Your task to perform on an android device: Open sound settings Image 0: 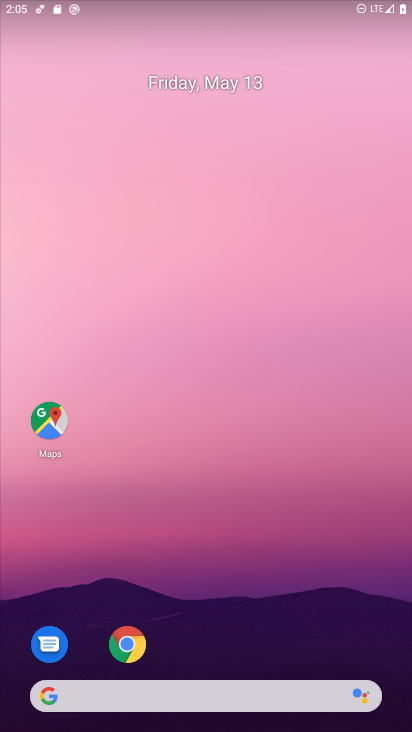
Step 0: drag from (301, 654) to (261, 103)
Your task to perform on an android device: Open sound settings Image 1: 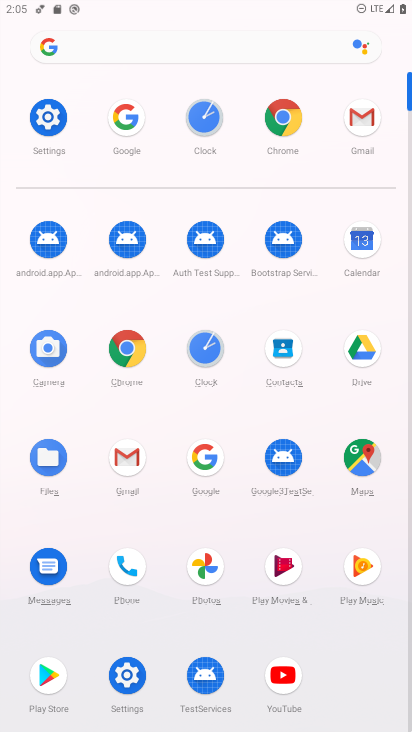
Step 1: click (43, 125)
Your task to perform on an android device: Open sound settings Image 2: 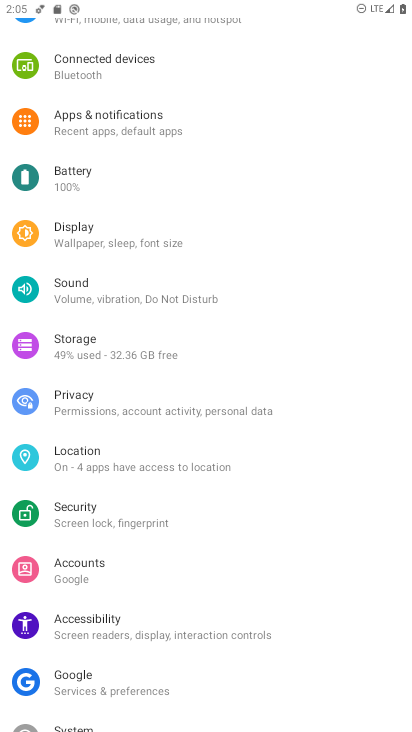
Step 2: click (121, 310)
Your task to perform on an android device: Open sound settings Image 3: 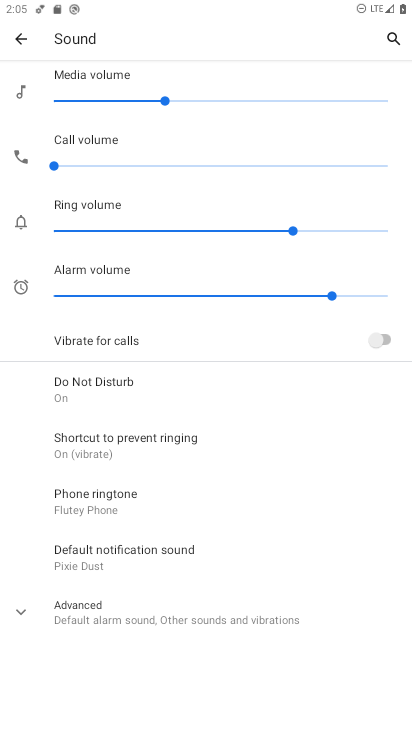
Step 3: task complete